Your task to perform on an android device: Open the calendar and show me this week's events Image 0: 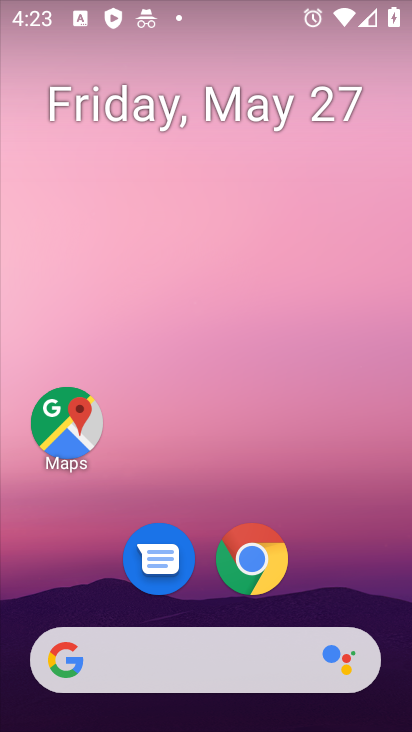
Step 0: drag from (269, 632) to (319, 5)
Your task to perform on an android device: Open the calendar and show me this week's events Image 1: 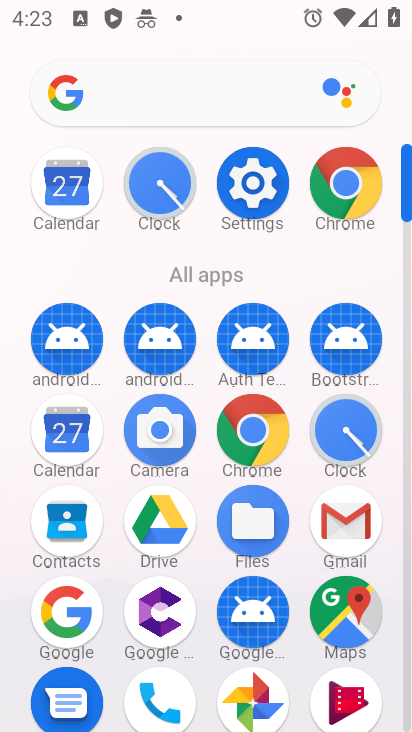
Step 1: click (61, 415)
Your task to perform on an android device: Open the calendar and show me this week's events Image 2: 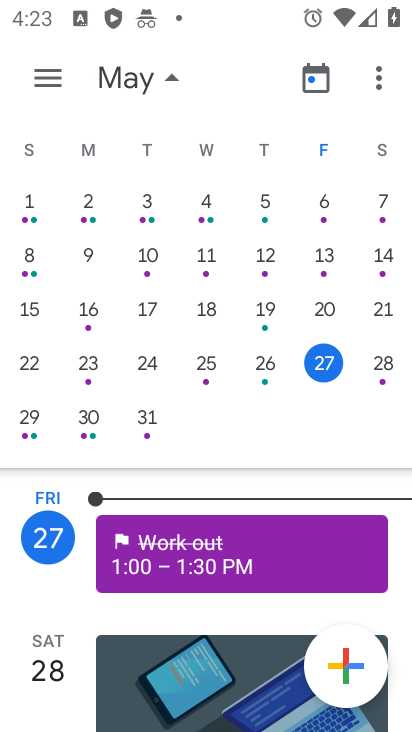
Step 2: click (164, 81)
Your task to perform on an android device: Open the calendar and show me this week's events Image 3: 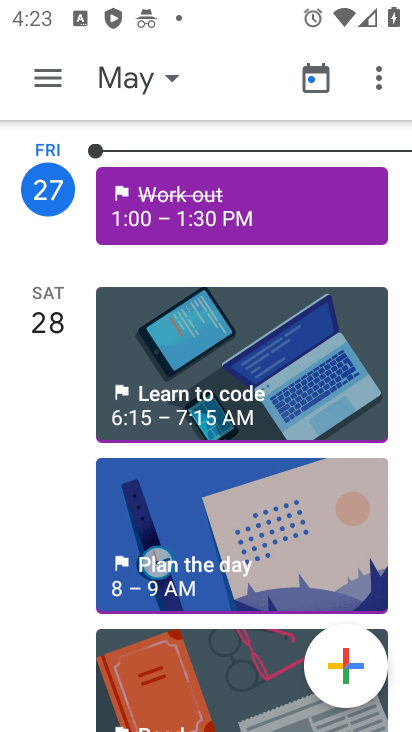
Step 3: click (165, 76)
Your task to perform on an android device: Open the calendar and show me this week's events Image 4: 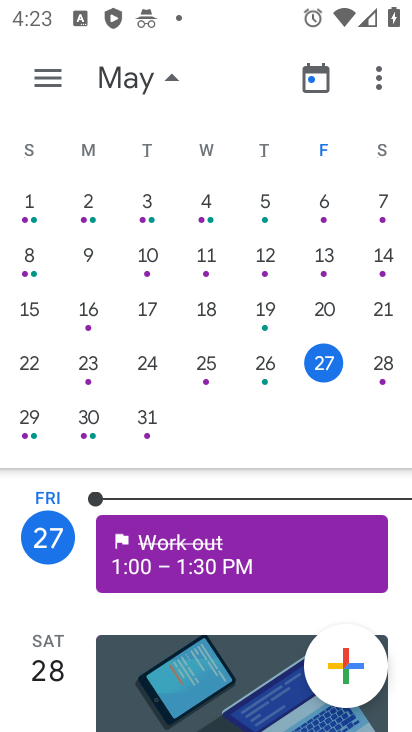
Step 4: click (164, 74)
Your task to perform on an android device: Open the calendar and show me this week's events Image 5: 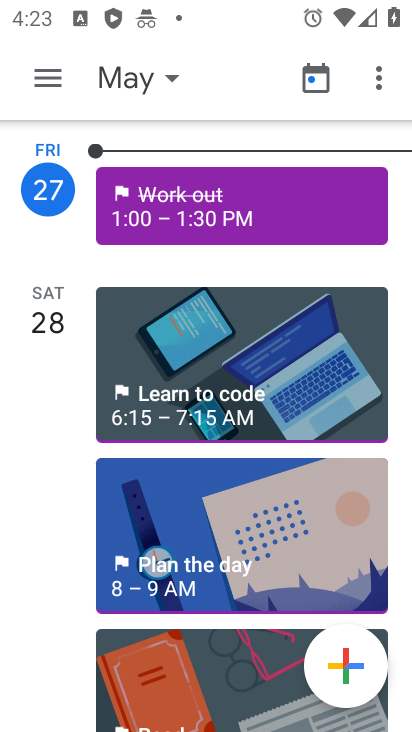
Step 5: click (177, 84)
Your task to perform on an android device: Open the calendar and show me this week's events Image 6: 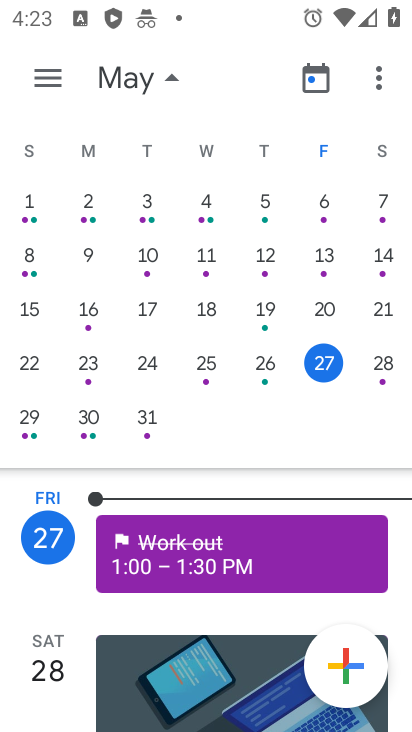
Step 6: click (377, 370)
Your task to perform on an android device: Open the calendar and show me this week's events Image 7: 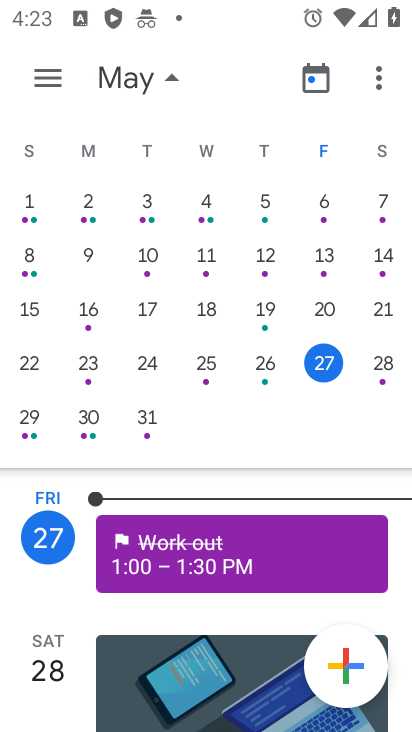
Step 7: task complete